Your task to perform on an android device: choose inbox layout in the gmail app Image 0: 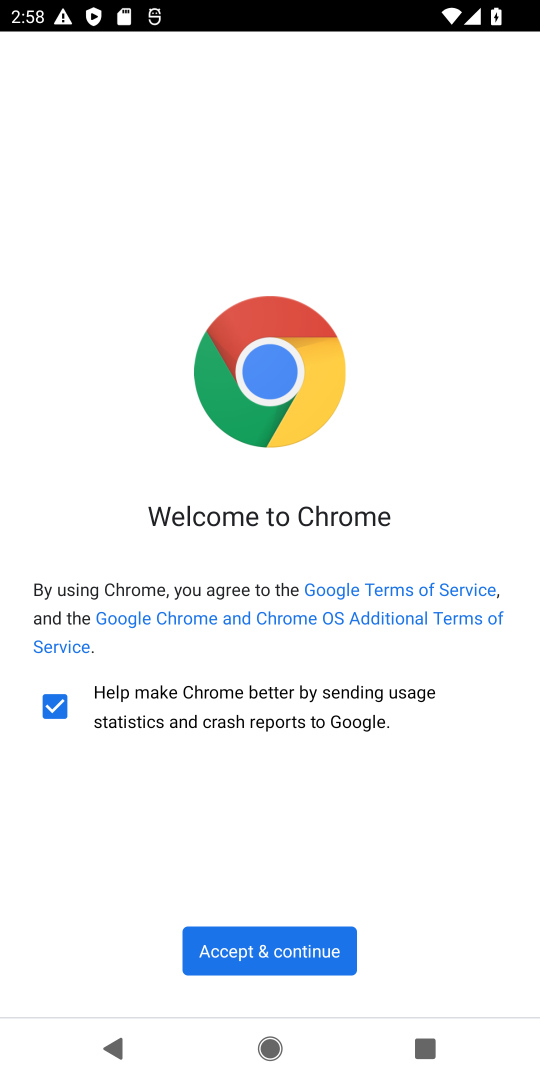
Step 0: press home button
Your task to perform on an android device: choose inbox layout in the gmail app Image 1: 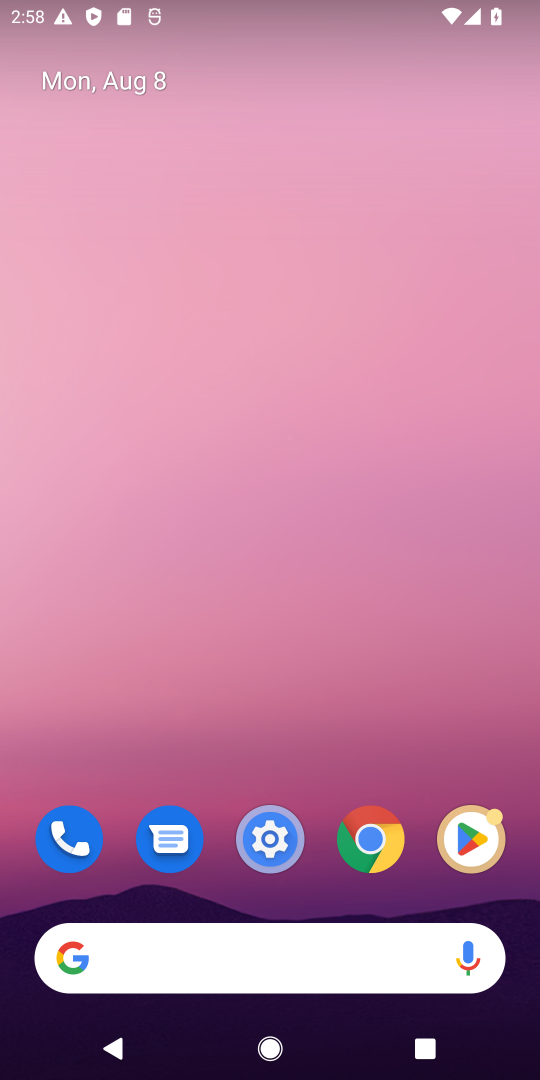
Step 1: drag from (288, 838) to (296, 748)
Your task to perform on an android device: choose inbox layout in the gmail app Image 2: 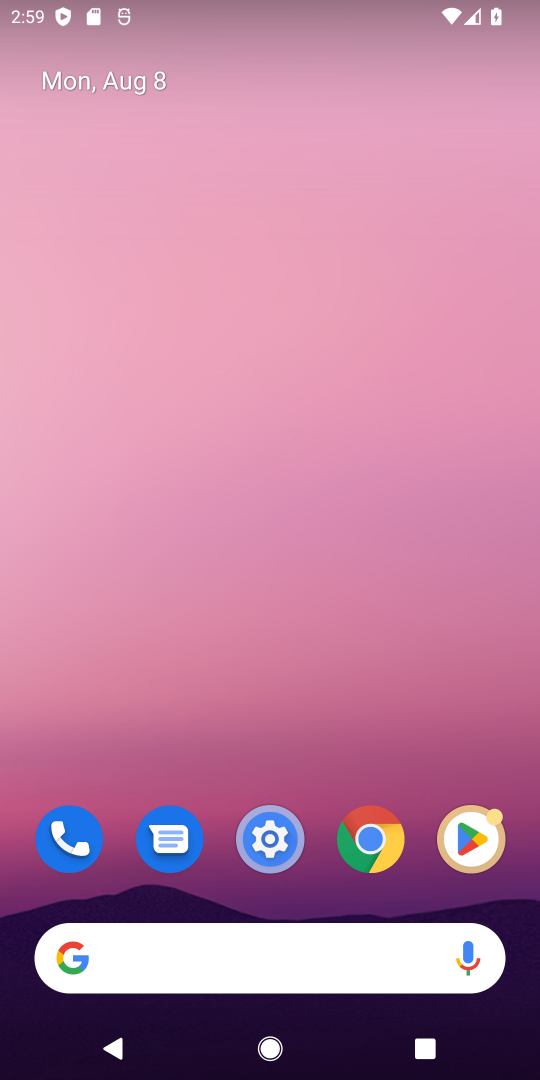
Step 2: drag from (261, 905) to (228, 592)
Your task to perform on an android device: choose inbox layout in the gmail app Image 3: 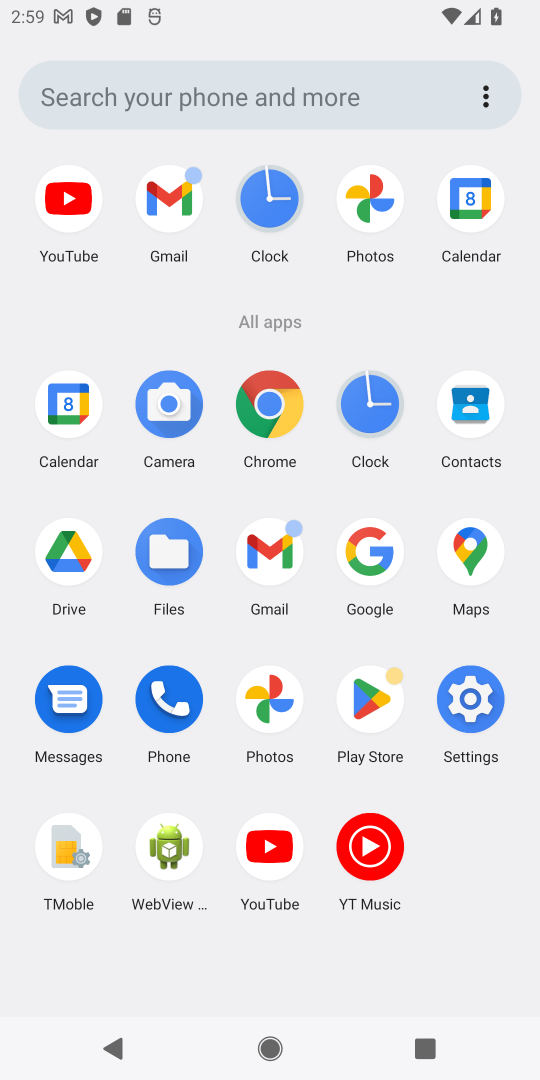
Step 3: click (272, 548)
Your task to perform on an android device: choose inbox layout in the gmail app Image 4: 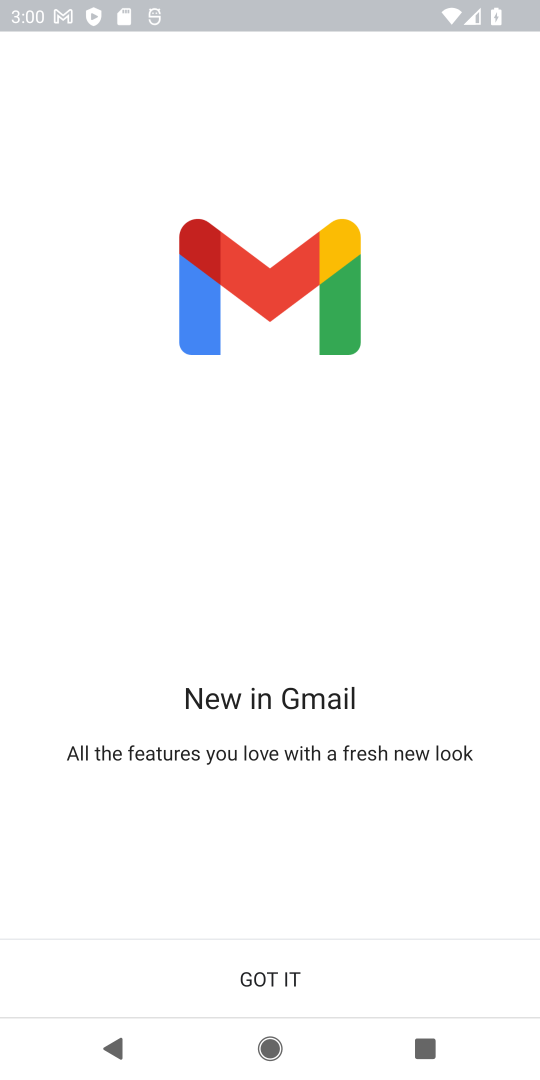
Step 4: click (249, 975)
Your task to perform on an android device: choose inbox layout in the gmail app Image 5: 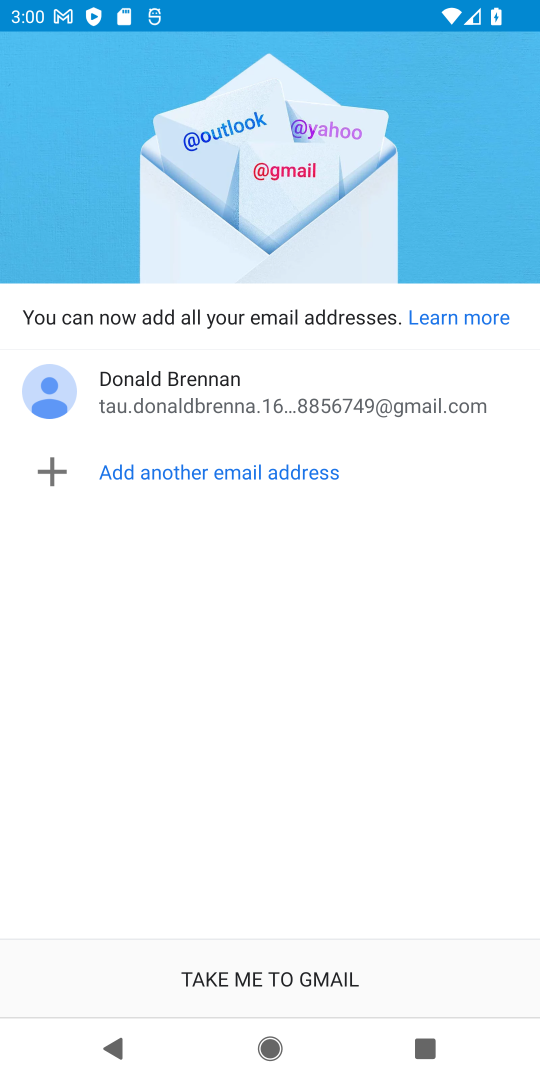
Step 5: click (205, 978)
Your task to perform on an android device: choose inbox layout in the gmail app Image 6: 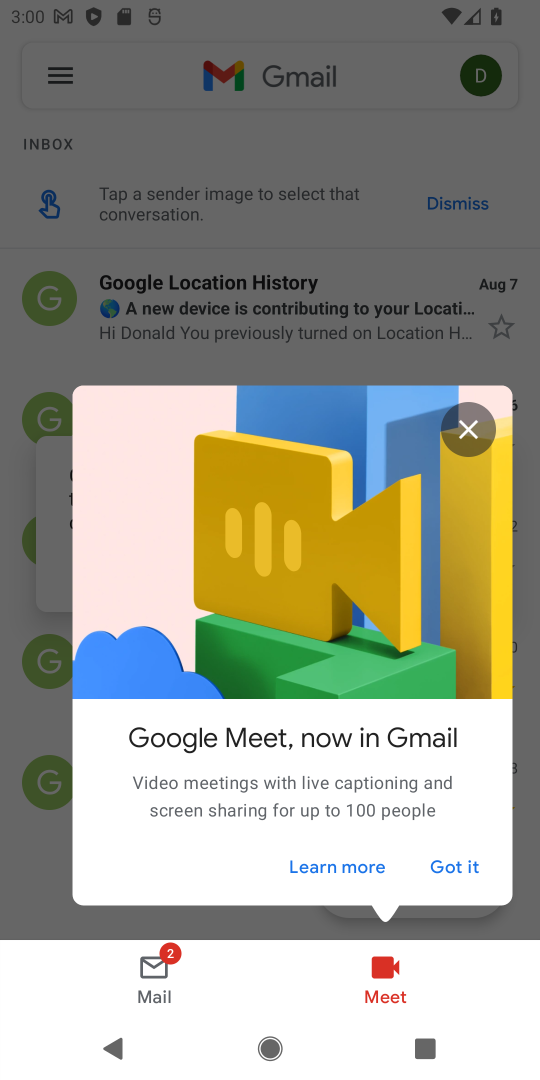
Step 6: click (434, 578)
Your task to perform on an android device: choose inbox layout in the gmail app Image 7: 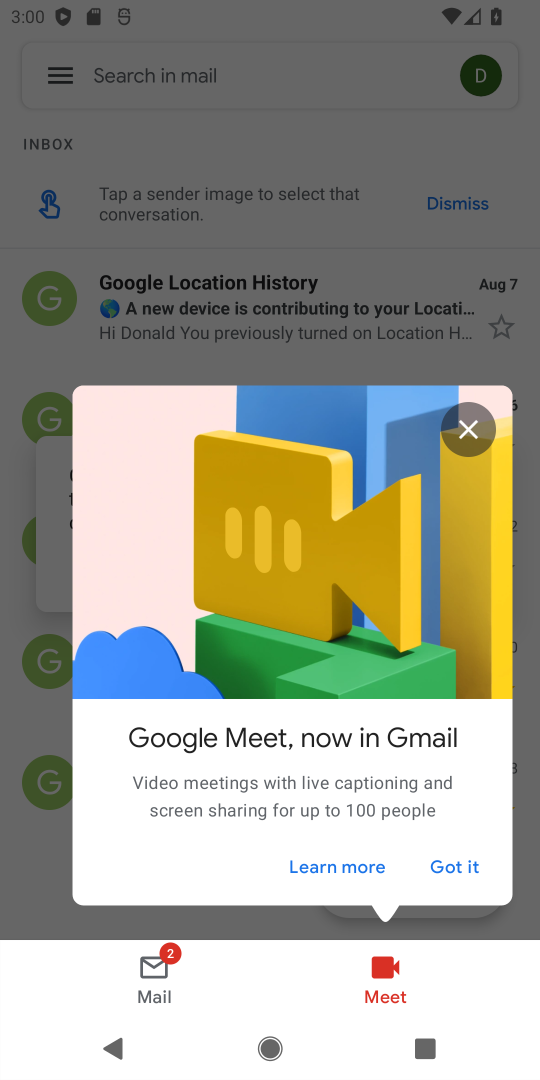
Step 7: click (474, 867)
Your task to perform on an android device: choose inbox layout in the gmail app Image 8: 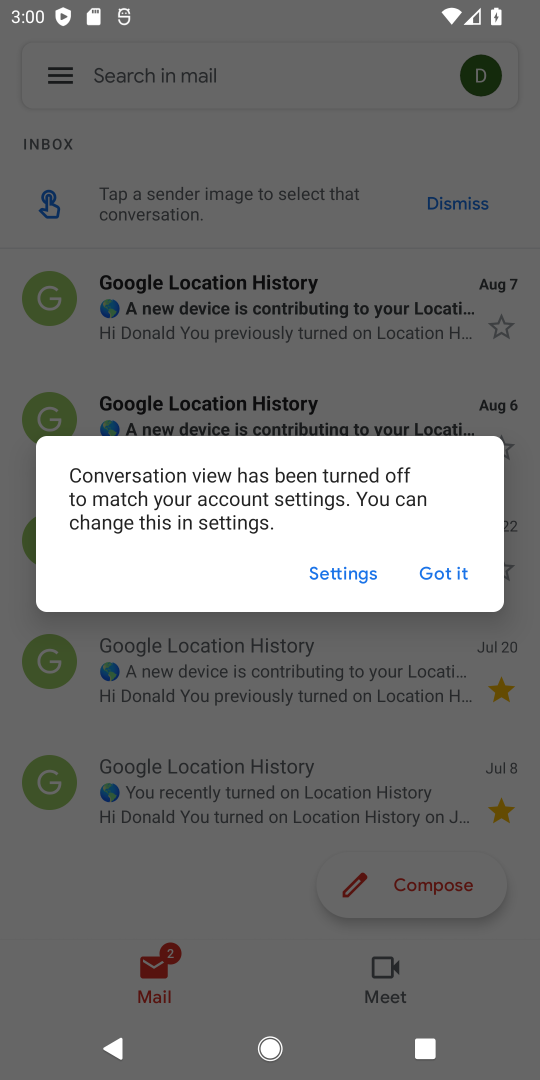
Step 8: click (457, 555)
Your task to perform on an android device: choose inbox layout in the gmail app Image 9: 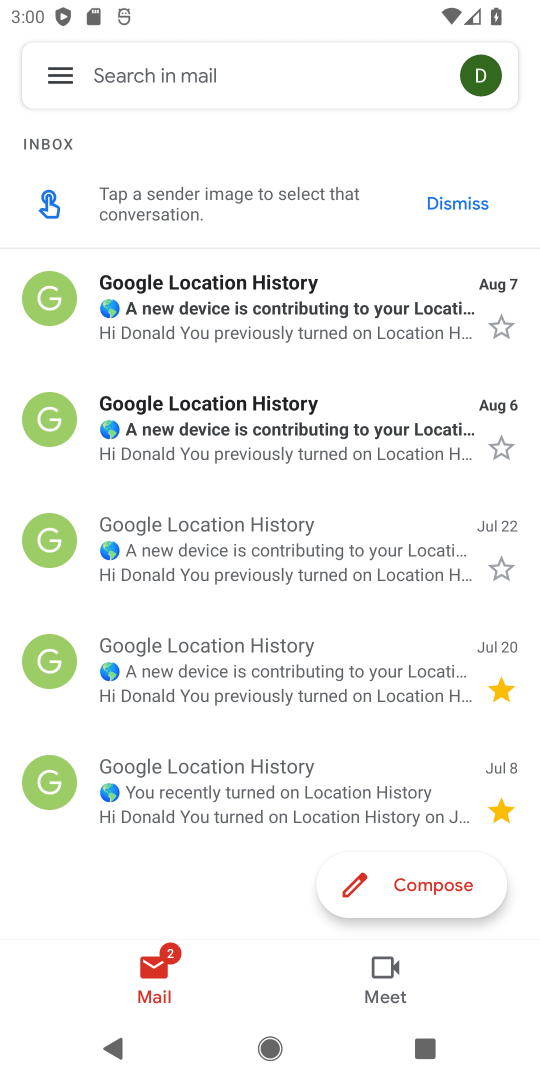
Step 9: task complete